Your task to perform on an android device: Go to Reddit.com Image 0: 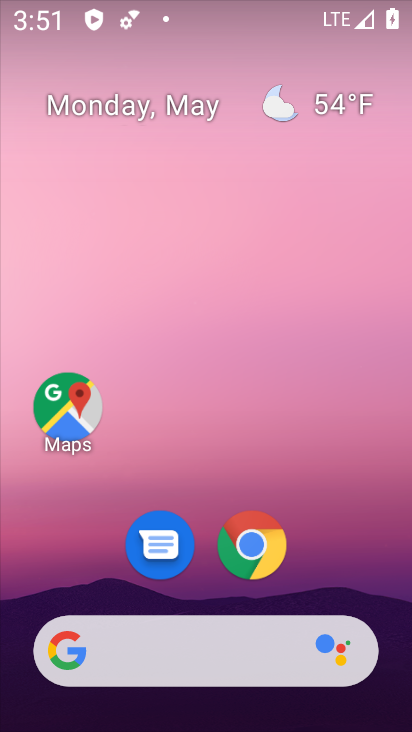
Step 0: click (247, 551)
Your task to perform on an android device: Go to Reddit.com Image 1: 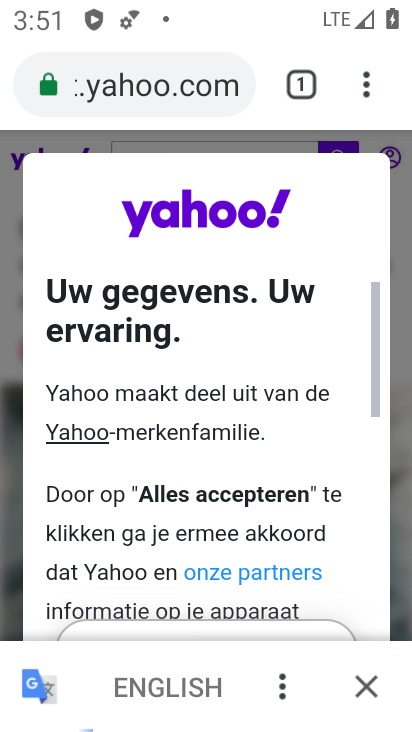
Step 1: click (166, 92)
Your task to perform on an android device: Go to Reddit.com Image 2: 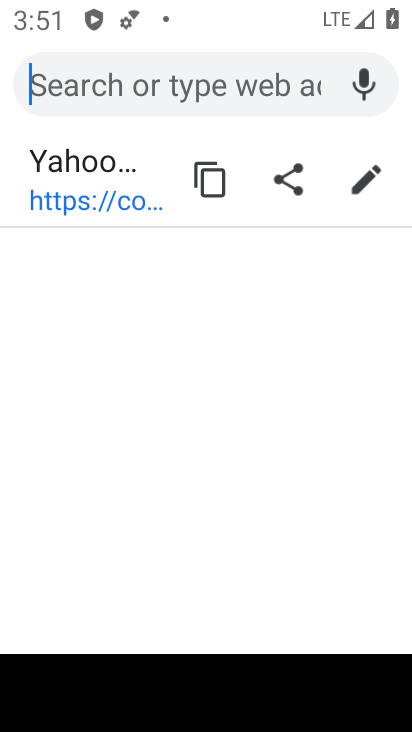
Step 2: type "reddit.com"
Your task to perform on an android device: Go to Reddit.com Image 3: 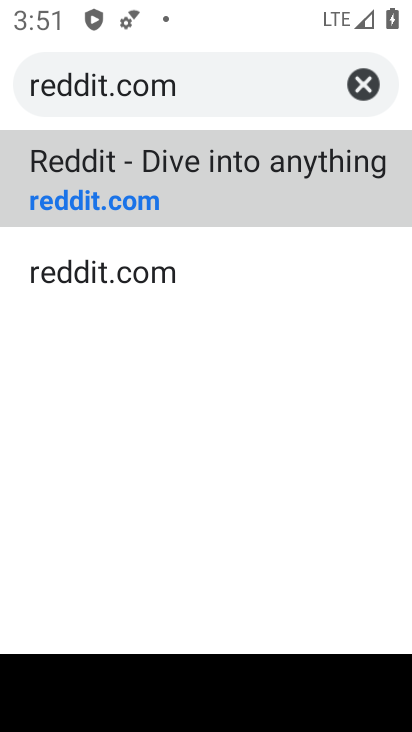
Step 3: click (122, 172)
Your task to perform on an android device: Go to Reddit.com Image 4: 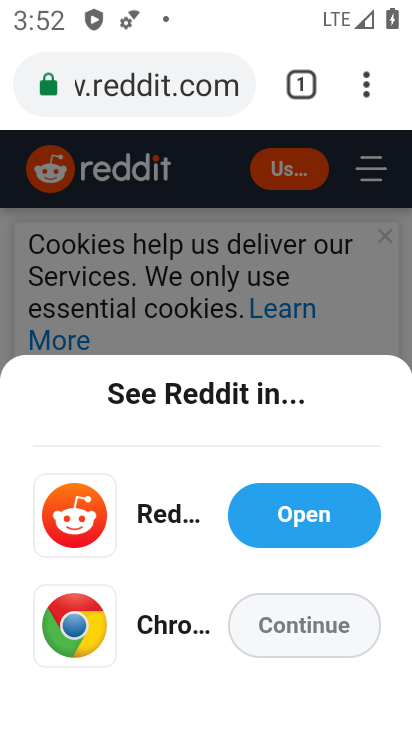
Step 4: task complete